Your task to perform on an android device: What's on my calendar today? Image 0: 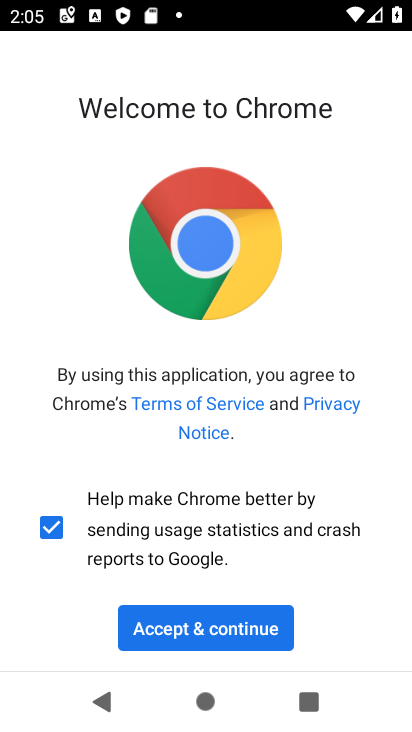
Step 0: press home button
Your task to perform on an android device: What's on my calendar today? Image 1: 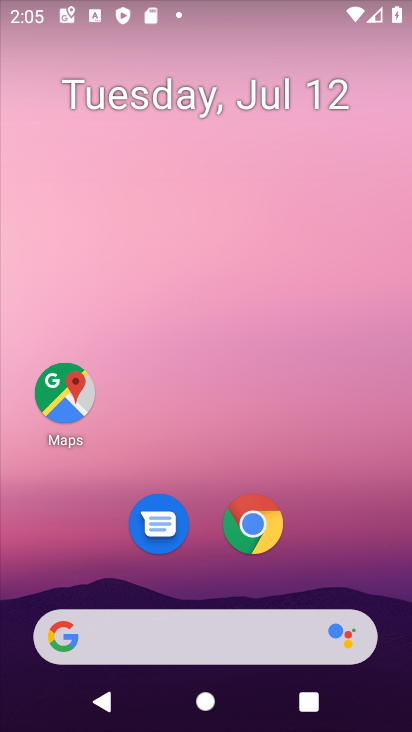
Step 1: drag from (318, 517) to (279, 9)
Your task to perform on an android device: What's on my calendar today? Image 2: 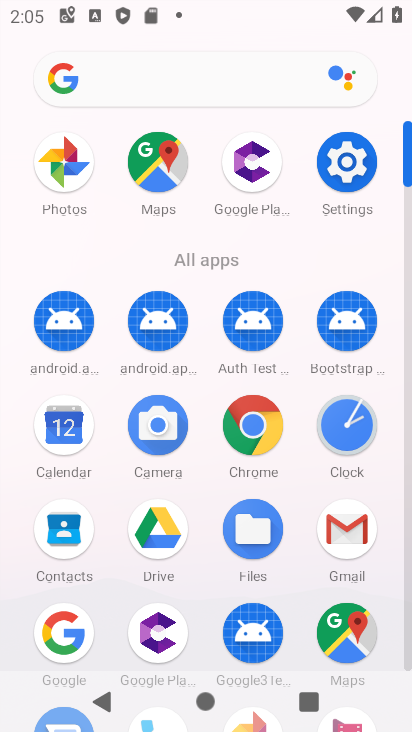
Step 2: click (65, 434)
Your task to perform on an android device: What's on my calendar today? Image 3: 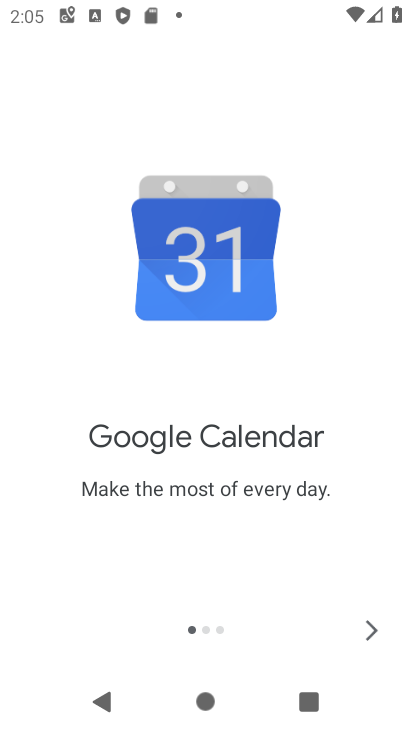
Step 3: click (366, 623)
Your task to perform on an android device: What's on my calendar today? Image 4: 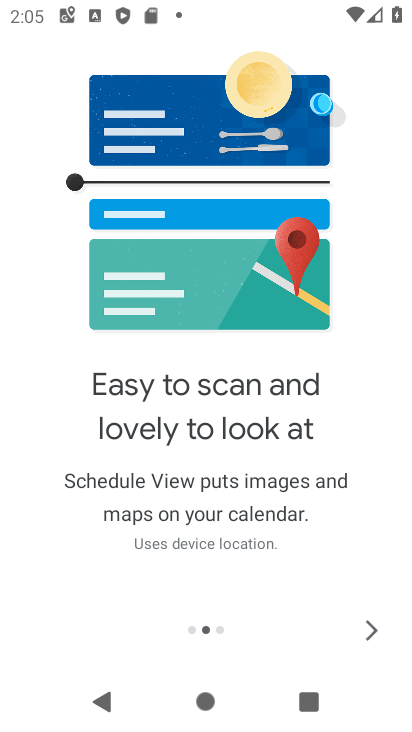
Step 4: click (366, 621)
Your task to perform on an android device: What's on my calendar today? Image 5: 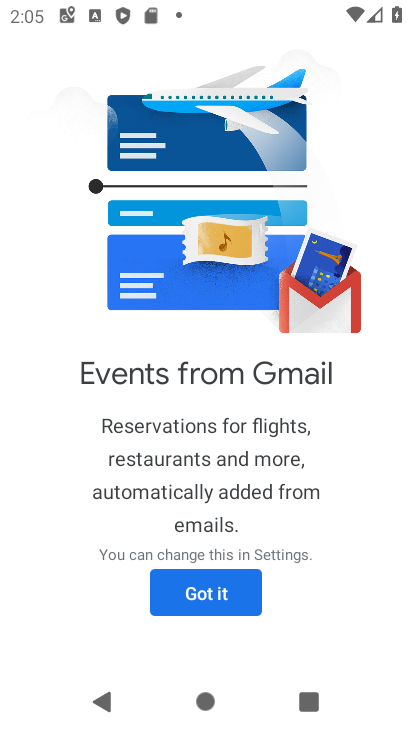
Step 5: click (237, 585)
Your task to perform on an android device: What's on my calendar today? Image 6: 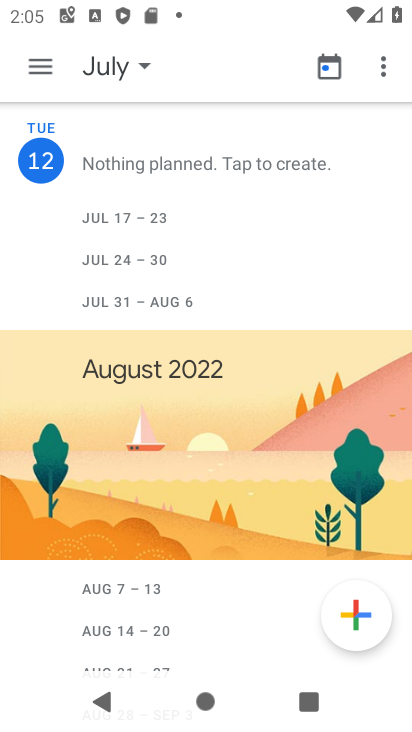
Step 6: click (38, 60)
Your task to perform on an android device: What's on my calendar today? Image 7: 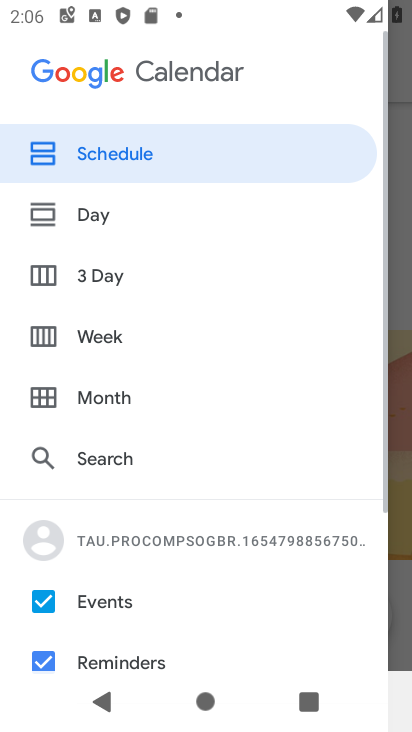
Step 7: click (66, 206)
Your task to perform on an android device: What's on my calendar today? Image 8: 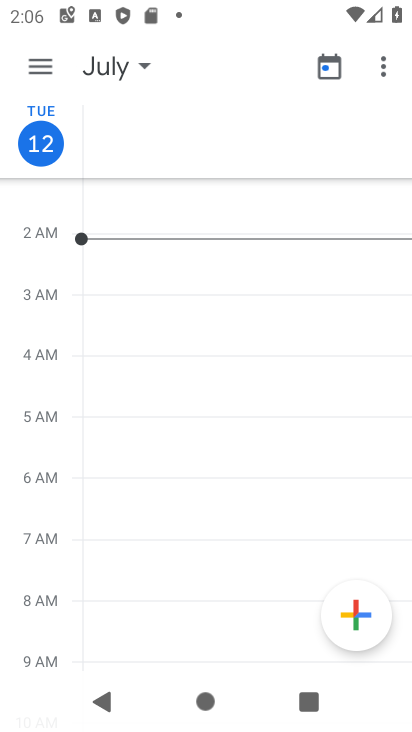
Step 8: task complete